Your task to perform on an android device: read, delete, or share a saved page in the chrome app Image 0: 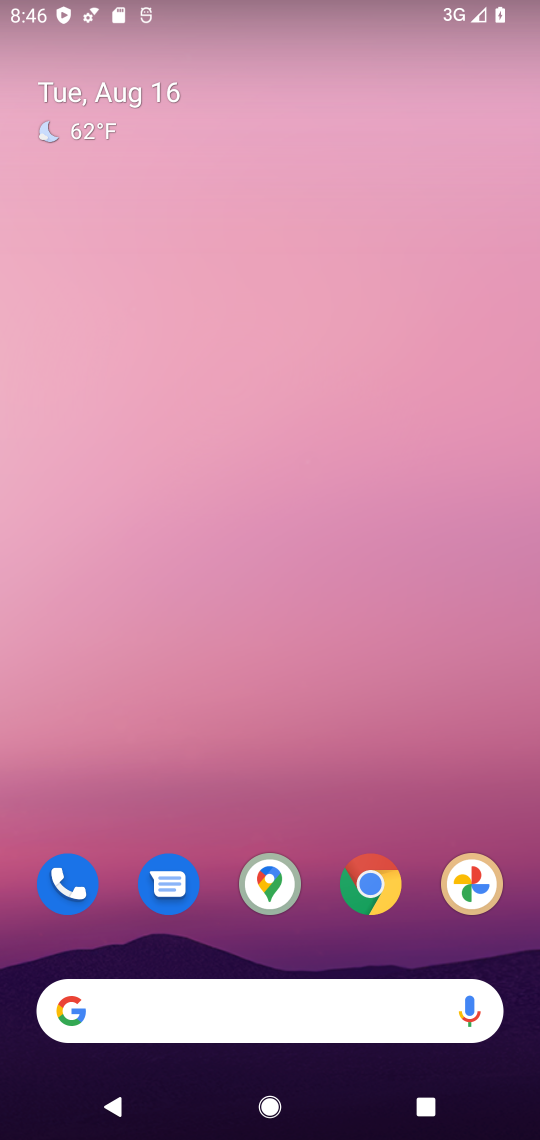
Step 0: click (373, 886)
Your task to perform on an android device: read, delete, or share a saved page in the chrome app Image 1: 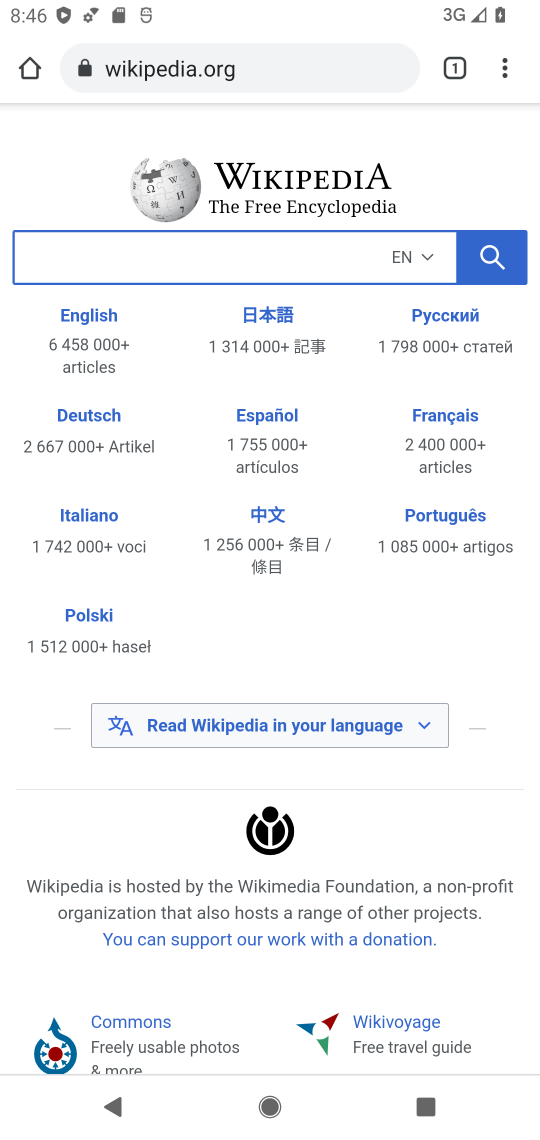
Step 1: click (496, 70)
Your task to perform on an android device: read, delete, or share a saved page in the chrome app Image 2: 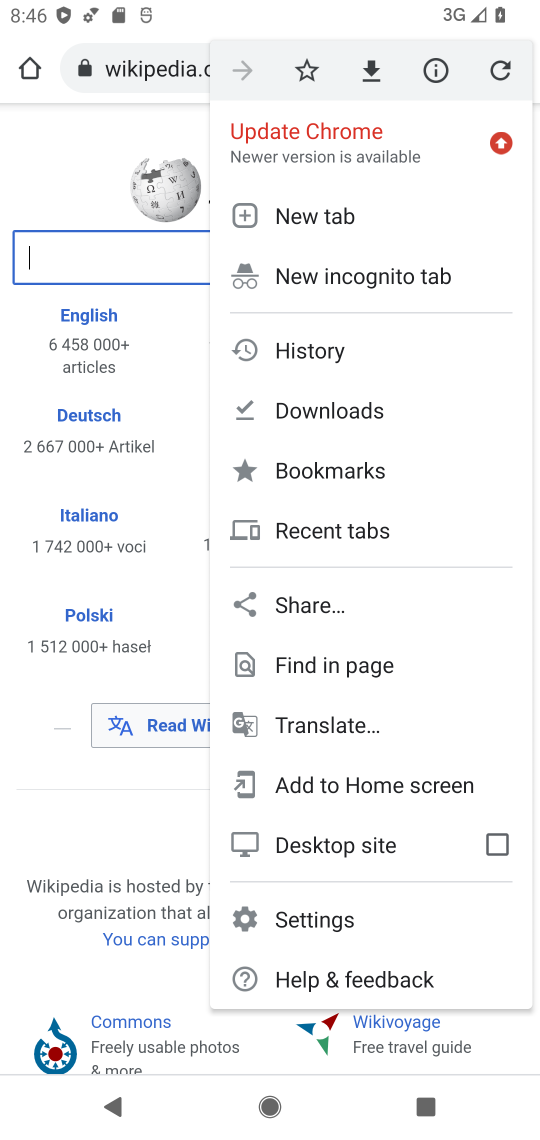
Step 2: click (308, 404)
Your task to perform on an android device: read, delete, or share a saved page in the chrome app Image 3: 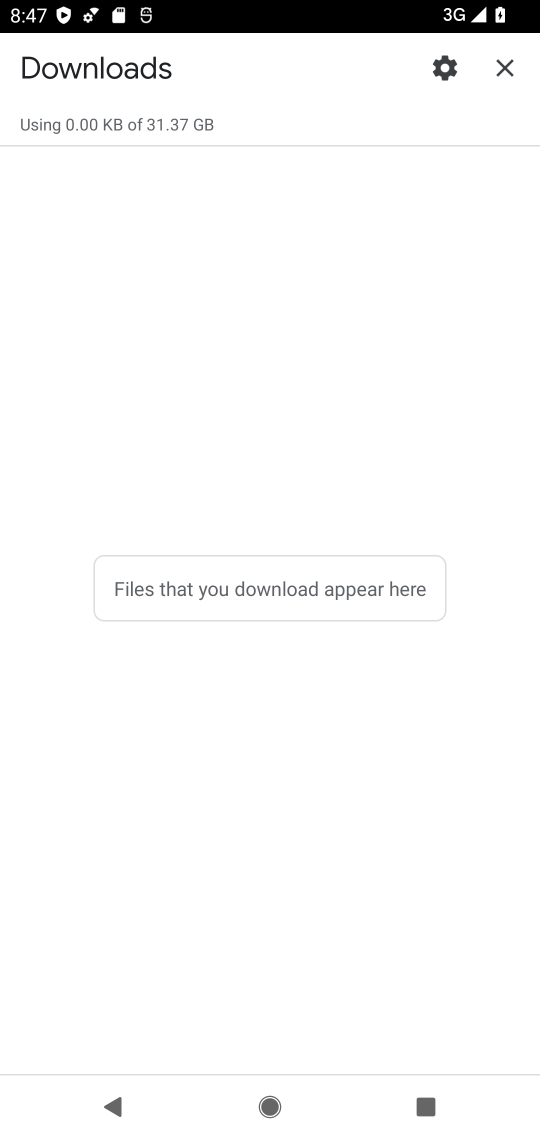
Step 3: task complete